Your task to perform on an android device: Open network settings Image 0: 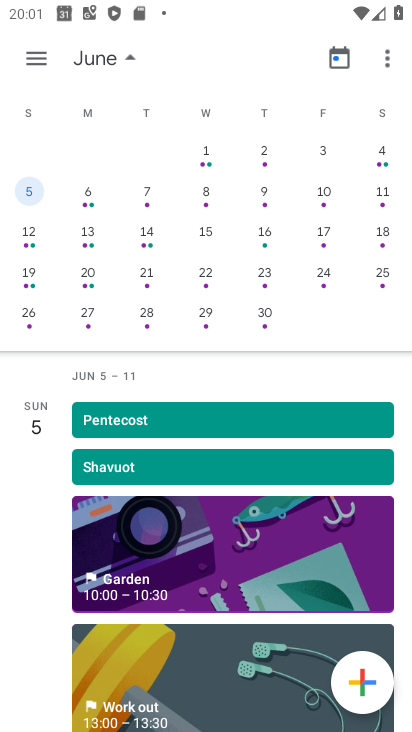
Step 0: press home button
Your task to perform on an android device: Open network settings Image 1: 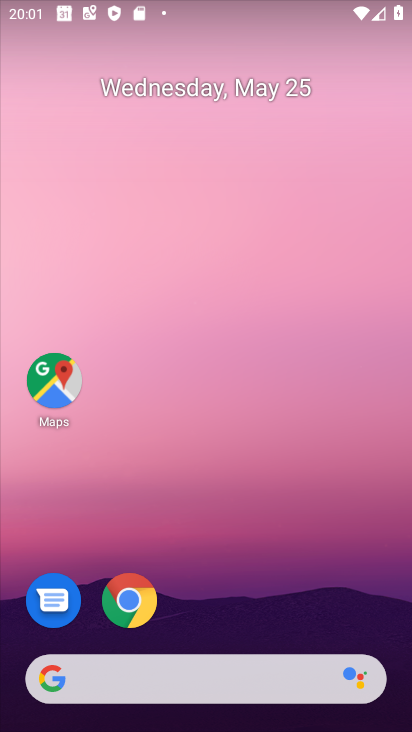
Step 1: drag from (328, 467) to (327, 209)
Your task to perform on an android device: Open network settings Image 2: 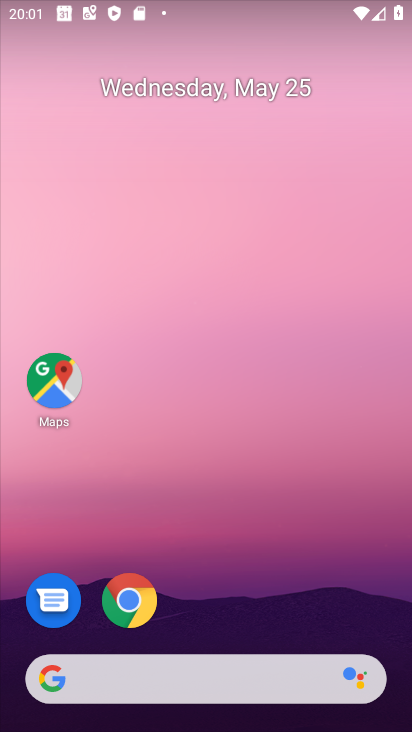
Step 2: drag from (304, 599) to (293, 221)
Your task to perform on an android device: Open network settings Image 3: 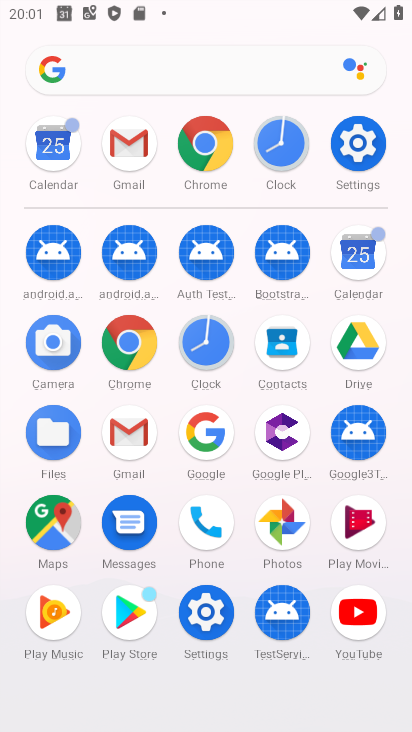
Step 3: click (189, 648)
Your task to perform on an android device: Open network settings Image 4: 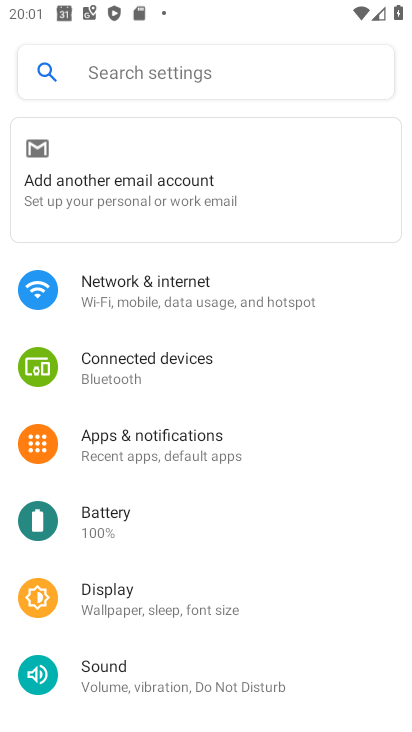
Step 4: click (225, 302)
Your task to perform on an android device: Open network settings Image 5: 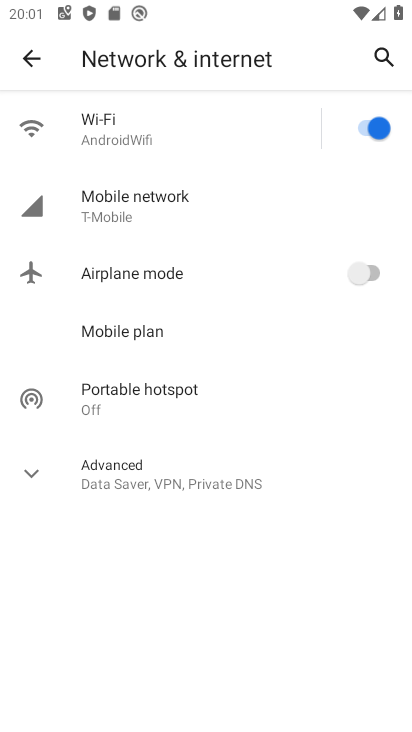
Step 5: task complete